Your task to perform on an android device: open chrome privacy settings Image 0: 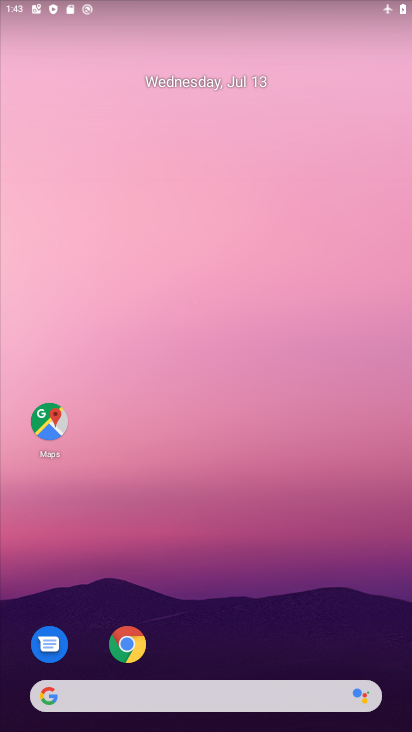
Step 0: drag from (280, 562) to (214, 104)
Your task to perform on an android device: open chrome privacy settings Image 1: 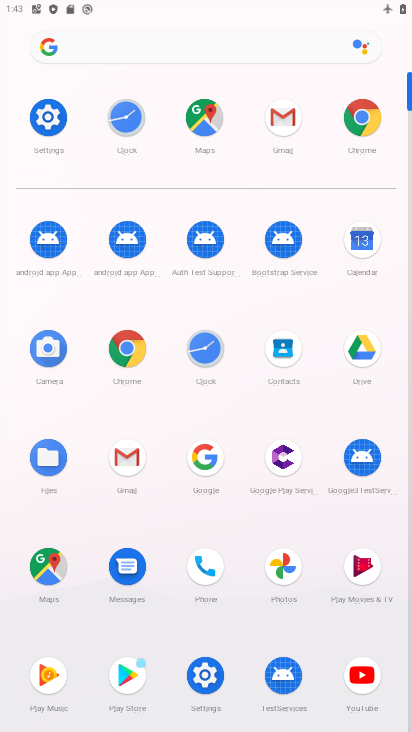
Step 1: click (364, 117)
Your task to perform on an android device: open chrome privacy settings Image 2: 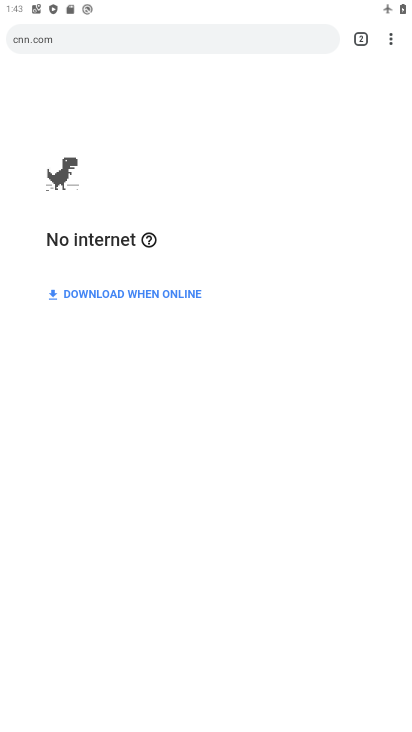
Step 2: click (393, 37)
Your task to perform on an android device: open chrome privacy settings Image 3: 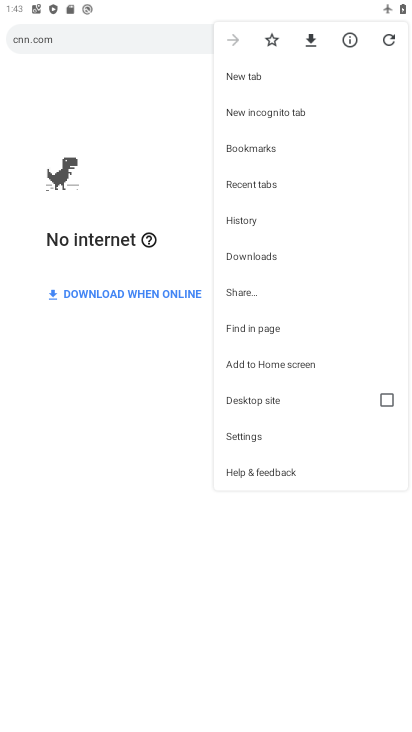
Step 3: click (256, 438)
Your task to perform on an android device: open chrome privacy settings Image 4: 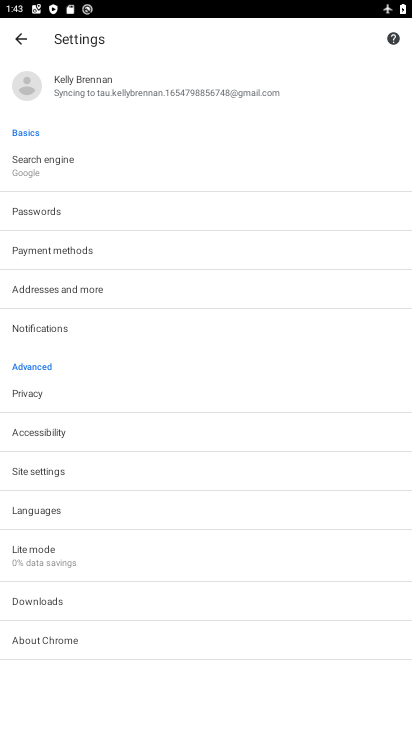
Step 4: click (42, 395)
Your task to perform on an android device: open chrome privacy settings Image 5: 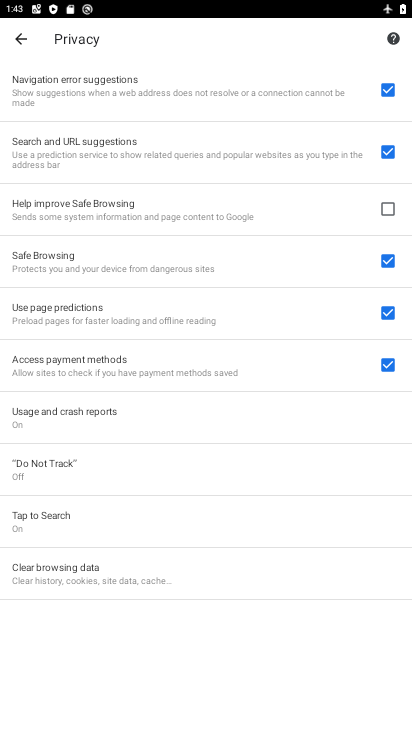
Step 5: task complete